Your task to perform on an android device: open app "Facebook Messenger" (install if not already installed) and enter user name: "divorce@inbox.com" and password: "caviar" Image 0: 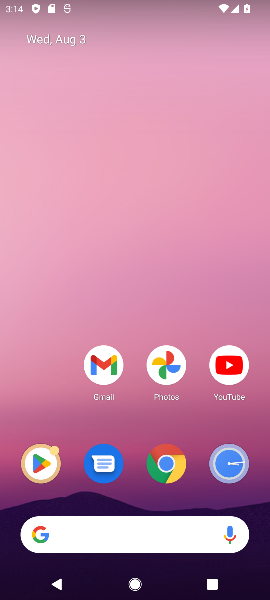
Step 0: drag from (141, 519) to (148, 100)
Your task to perform on an android device: open app "Facebook Messenger" (install if not already installed) and enter user name: "divorce@inbox.com" and password: "caviar" Image 1: 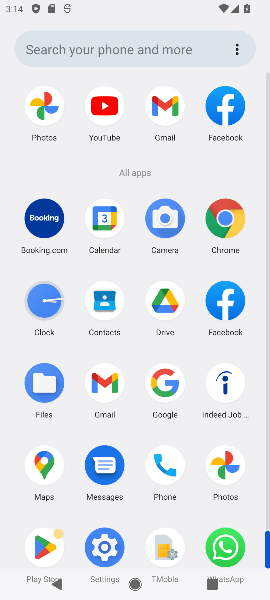
Step 1: click (46, 544)
Your task to perform on an android device: open app "Facebook Messenger" (install if not already installed) and enter user name: "divorce@inbox.com" and password: "caviar" Image 2: 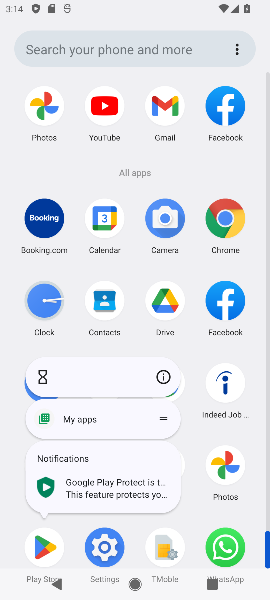
Step 2: click (46, 544)
Your task to perform on an android device: open app "Facebook Messenger" (install if not already installed) and enter user name: "divorce@inbox.com" and password: "caviar" Image 3: 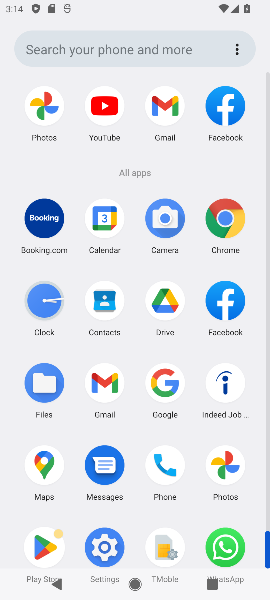
Step 3: click (46, 544)
Your task to perform on an android device: open app "Facebook Messenger" (install if not already installed) and enter user name: "divorce@inbox.com" and password: "caviar" Image 4: 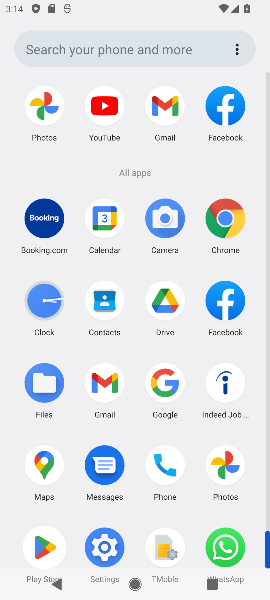
Step 4: click (46, 544)
Your task to perform on an android device: open app "Facebook Messenger" (install if not already installed) and enter user name: "divorce@inbox.com" and password: "caviar" Image 5: 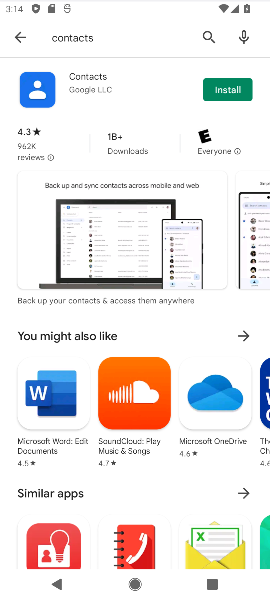
Step 5: click (45, 544)
Your task to perform on an android device: open app "Facebook Messenger" (install if not already installed) and enter user name: "divorce@inbox.com" and password: "caviar" Image 6: 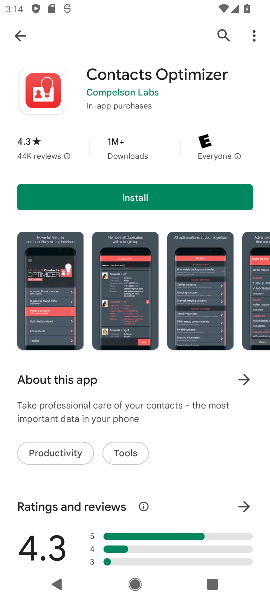
Step 6: click (19, 28)
Your task to perform on an android device: open app "Facebook Messenger" (install if not already installed) and enter user name: "divorce@inbox.com" and password: "caviar" Image 7: 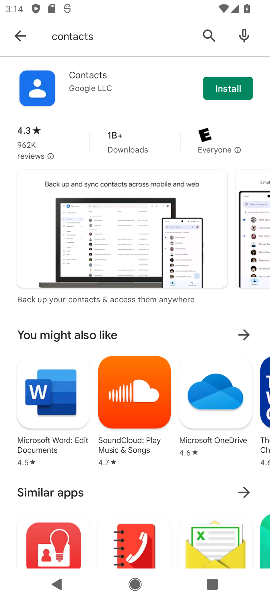
Step 7: click (83, 28)
Your task to perform on an android device: open app "Facebook Messenger" (install if not already installed) and enter user name: "divorce@inbox.com" and password: "caviar" Image 8: 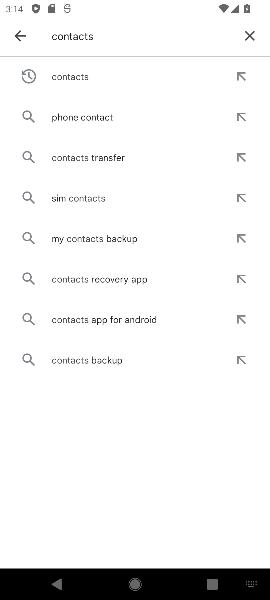
Step 8: click (210, 30)
Your task to perform on an android device: open app "Facebook Messenger" (install if not already installed) and enter user name: "divorce@inbox.com" and password: "caviar" Image 9: 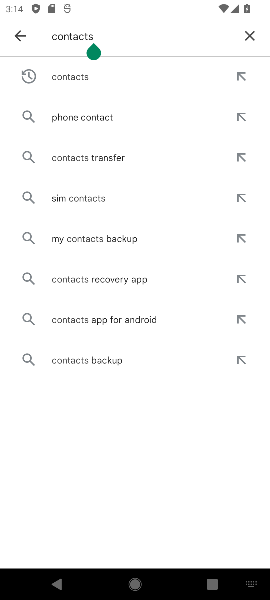
Step 9: click (250, 27)
Your task to perform on an android device: open app "Facebook Messenger" (install if not already installed) and enter user name: "divorce@inbox.com" and password: "caviar" Image 10: 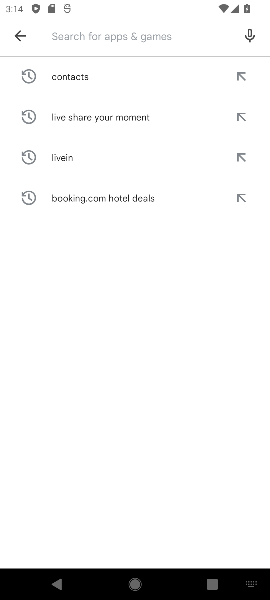
Step 10: type "facebook messenger"
Your task to perform on an android device: open app "Facebook Messenger" (install if not already installed) and enter user name: "divorce@inbox.com" and password: "caviar" Image 11: 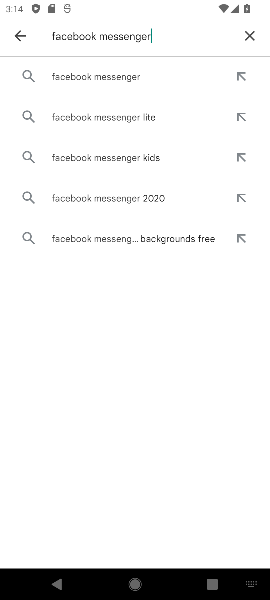
Step 11: click (78, 71)
Your task to perform on an android device: open app "Facebook Messenger" (install if not already installed) and enter user name: "divorce@inbox.com" and password: "caviar" Image 12: 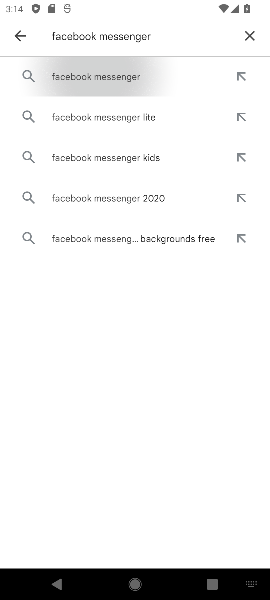
Step 12: click (78, 71)
Your task to perform on an android device: open app "Facebook Messenger" (install if not already installed) and enter user name: "divorce@inbox.com" and password: "caviar" Image 13: 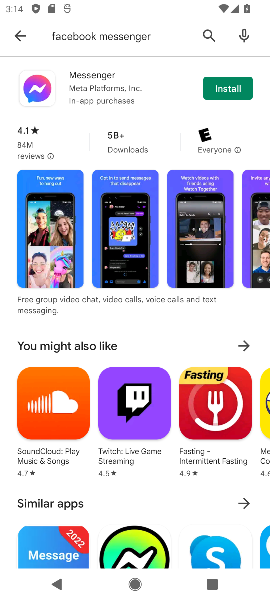
Step 13: click (228, 92)
Your task to perform on an android device: open app "Facebook Messenger" (install if not already installed) and enter user name: "divorce@inbox.com" and password: "caviar" Image 14: 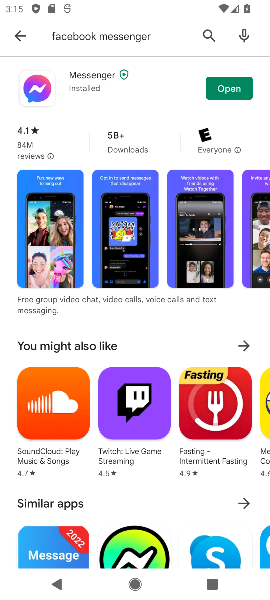
Step 14: click (228, 92)
Your task to perform on an android device: open app "Facebook Messenger" (install if not already installed) and enter user name: "divorce@inbox.com" and password: "caviar" Image 15: 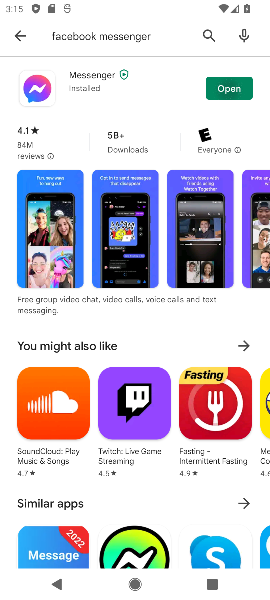
Step 15: click (228, 89)
Your task to perform on an android device: open app "Facebook Messenger" (install if not already installed) and enter user name: "divorce@inbox.com" and password: "caviar" Image 16: 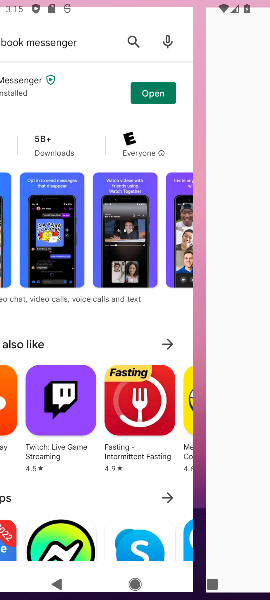
Step 16: click (228, 89)
Your task to perform on an android device: open app "Facebook Messenger" (install if not already installed) and enter user name: "divorce@inbox.com" and password: "caviar" Image 17: 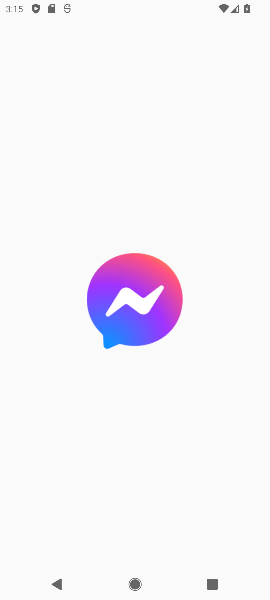
Step 17: click (228, 89)
Your task to perform on an android device: open app "Facebook Messenger" (install if not already installed) and enter user name: "divorce@inbox.com" and password: "caviar" Image 18: 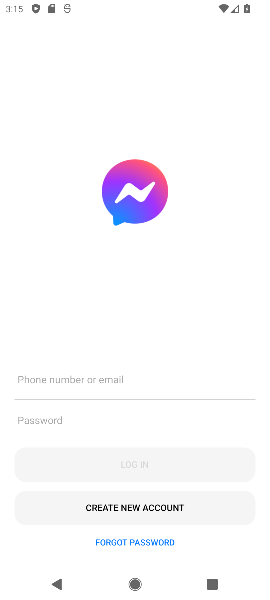
Step 18: click (79, 383)
Your task to perform on an android device: open app "Facebook Messenger" (install if not already installed) and enter user name: "divorce@inbox.com" and password: "caviar" Image 19: 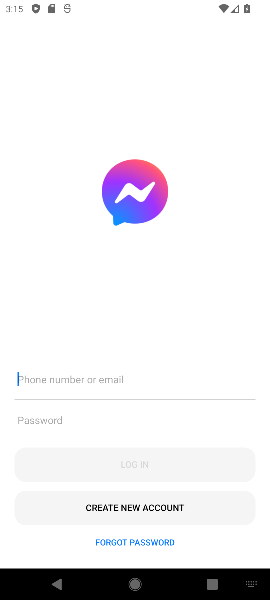
Step 19: type "divorce@inbox.com"
Your task to perform on an android device: open app "Facebook Messenger" (install if not already installed) and enter user name: "divorce@inbox.com" and password: "caviar" Image 20: 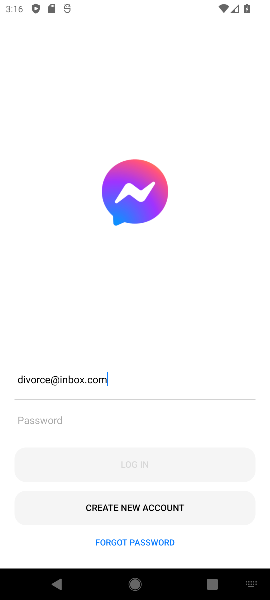
Step 20: click (53, 423)
Your task to perform on an android device: open app "Facebook Messenger" (install if not already installed) and enter user name: "divorce@inbox.com" and password: "caviar" Image 21: 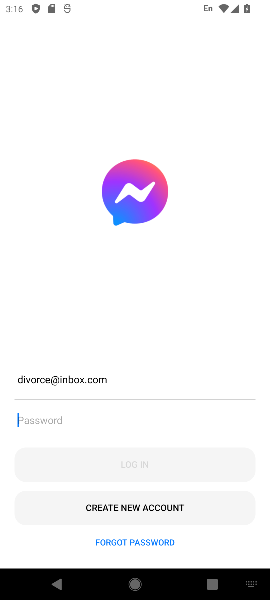
Step 21: type "caviar"
Your task to perform on an android device: open app "Facebook Messenger" (install if not already installed) and enter user name: "divorce@inbox.com" and password: "caviar" Image 22: 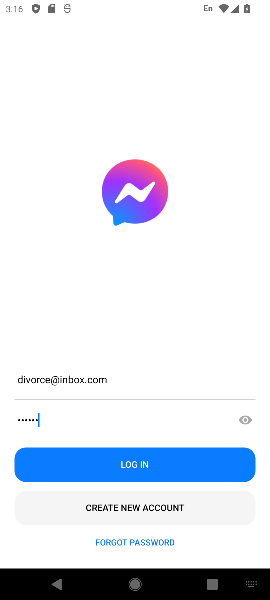
Step 22: click (147, 464)
Your task to perform on an android device: open app "Facebook Messenger" (install if not already installed) and enter user name: "divorce@inbox.com" and password: "caviar" Image 23: 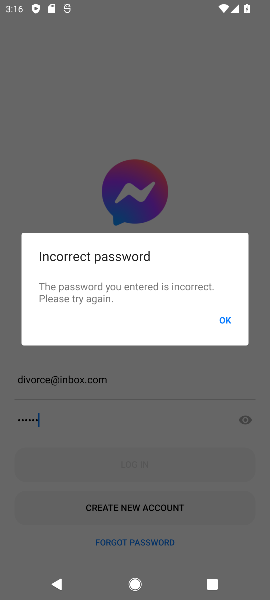
Step 23: click (228, 315)
Your task to perform on an android device: open app "Facebook Messenger" (install if not already installed) and enter user name: "divorce@inbox.com" and password: "caviar" Image 24: 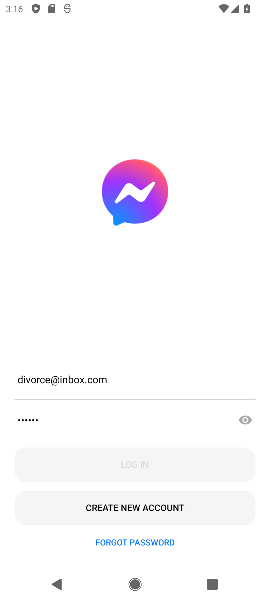
Step 24: click (247, 415)
Your task to perform on an android device: open app "Facebook Messenger" (install if not already installed) and enter user name: "divorce@inbox.com" and password: "caviar" Image 25: 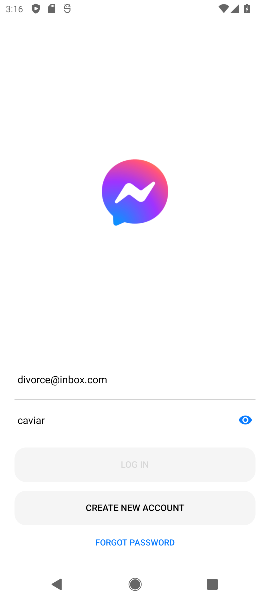
Step 25: click (245, 421)
Your task to perform on an android device: open app "Facebook Messenger" (install if not already installed) and enter user name: "divorce@inbox.com" and password: "caviar" Image 26: 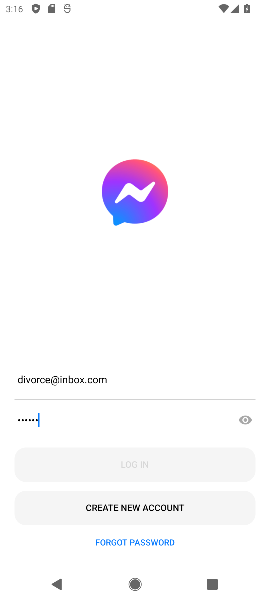
Step 26: click (238, 418)
Your task to perform on an android device: open app "Facebook Messenger" (install if not already installed) and enter user name: "divorce@inbox.com" and password: "caviar" Image 27: 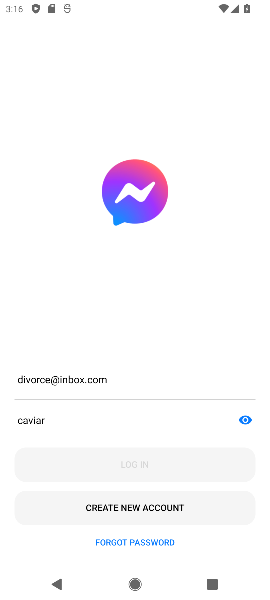
Step 27: click (246, 414)
Your task to perform on an android device: open app "Facebook Messenger" (install if not already installed) and enter user name: "divorce@inbox.com" and password: "caviar" Image 28: 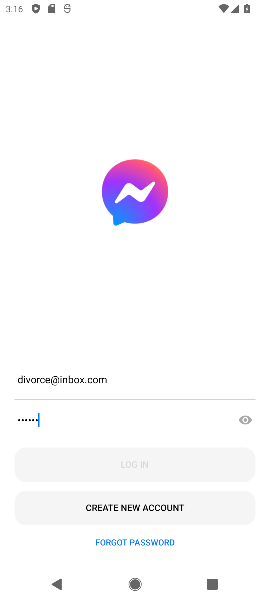
Step 28: click (147, 468)
Your task to perform on an android device: open app "Facebook Messenger" (install if not already installed) and enter user name: "divorce@inbox.com" and password: "caviar" Image 29: 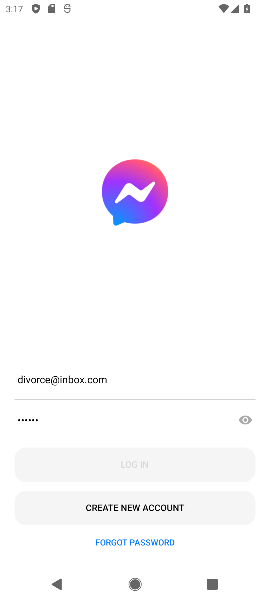
Step 29: click (146, 467)
Your task to perform on an android device: open app "Facebook Messenger" (install if not already installed) and enter user name: "divorce@inbox.com" and password: "caviar" Image 30: 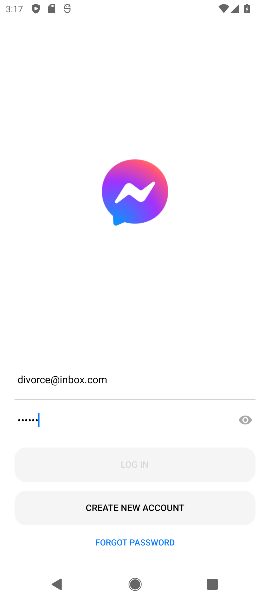
Step 30: click (145, 465)
Your task to perform on an android device: open app "Facebook Messenger" (install if not already installed) and enter user name: "divorce@inbox.com" and password: "caviar" Image 31: 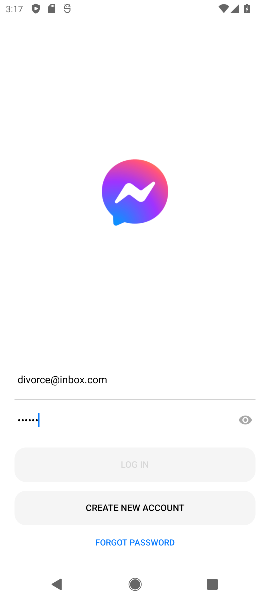
Step 31: click (145, 465)
Your task to perform on an android device: open app "Facebook Messenger" (install if not already installed) and enter user name: "divorce@inbox.com" and password: "caviar" Image 32: 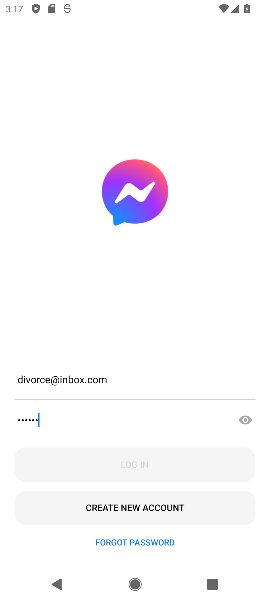
Step 32: click (142, 454)
Your task to perform on an android device: open app "Facebook Messenger" (install if not already installed) and enter user name: "divorce@inbox.com" and password: "caviar" Image 33: 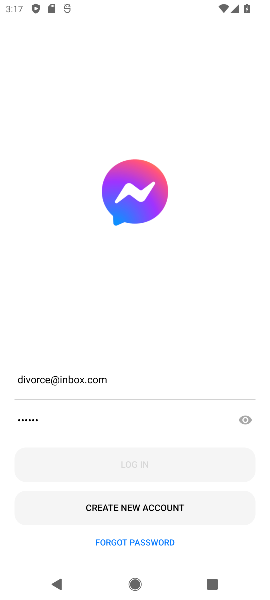
Step 33: click (142, 454)
Your task to perform on an android device: open app "Facebook Messenger" (install if not already installed) and enter user name: "divorce@inbox.com" and password: "caviar" Image 34: 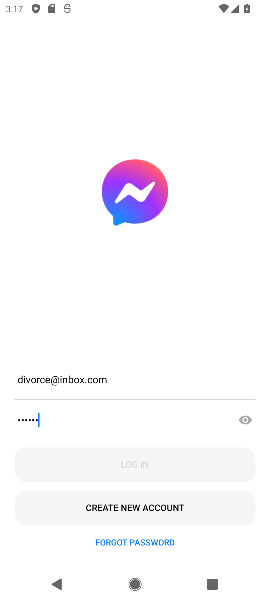
Step 34: click (142, 454)
Your task to perform on an android device: open app "Facebook Messenger" (install if not already installed) and enter user name: "divorce@inbox.com" and password: "caviar" Image 35: 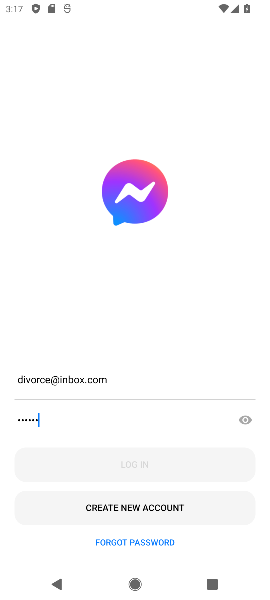
Step 35: click (141, 453)
Your task to perform on an android device: open app "Facebook Messenger" (install if not already installed) and enter user name: "divorce@inbox.com" and password: "caviar" Image 36: 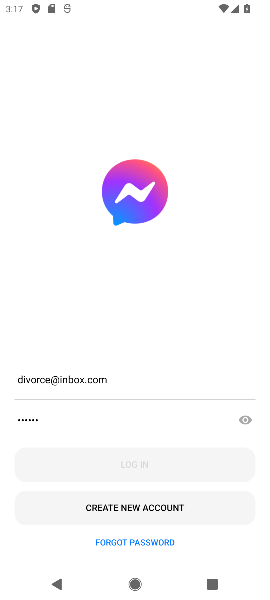
Step 36: click (143, 454)
Your task to perform on an android device: open app "Facebook Messenger" (install if not already installed) and enter user name: "divorce@inbox.com" and password: "caviar" Image 37: 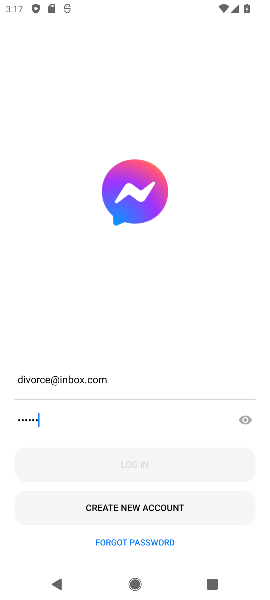
Step 37: task complete